Your task to perform on an android device: change the clock display to show seconds Image 0: 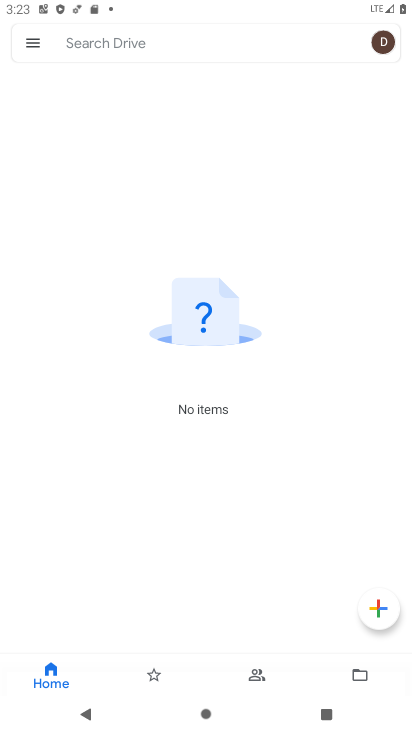
Step 0: press home button
Your task to perform on an android device: change the clock display to show seconds Image 1: 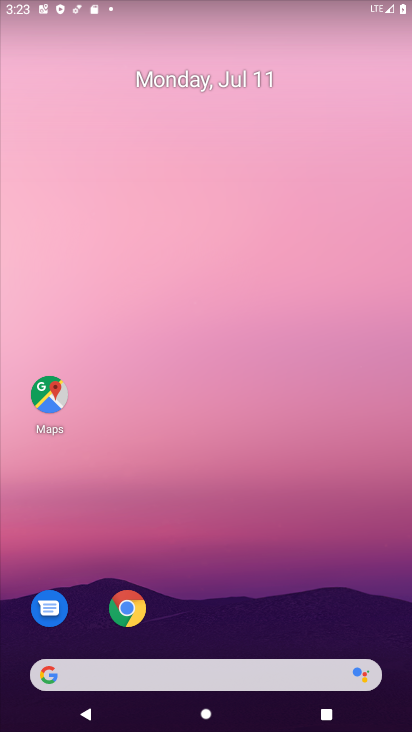
Step 1: drag from (163, 638) to (90, 129)
Your task to perform on an android device: change the clock display to show seconds Image 2: 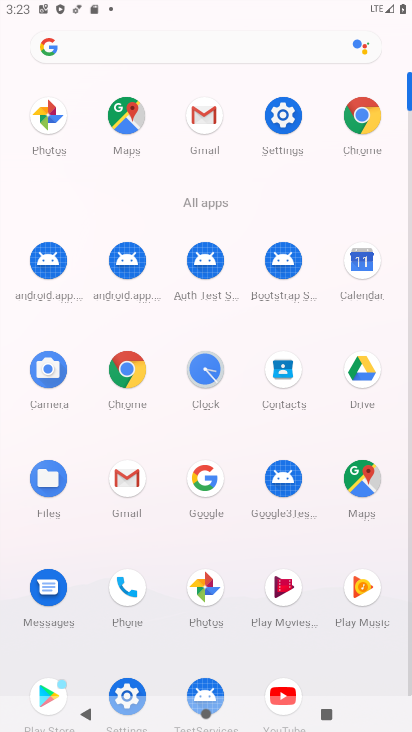
Step 2: click (214, 375)
Your task to perform on an android device: change the clock display to show seconds Image 3: 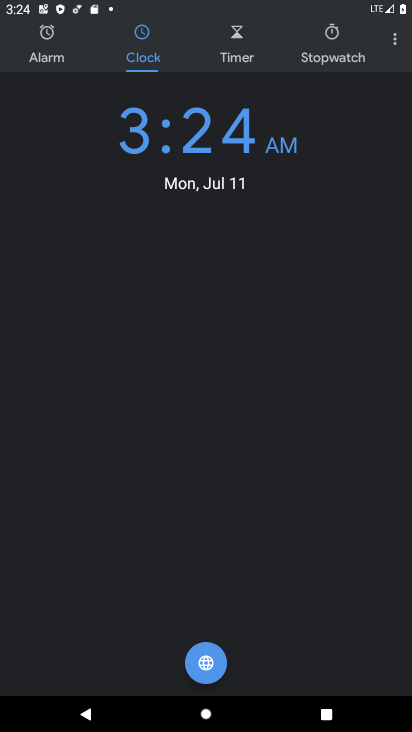
Step 3: click (389, 45)
Your task to perform on an android device: change the clock display to show seconds Image 4: 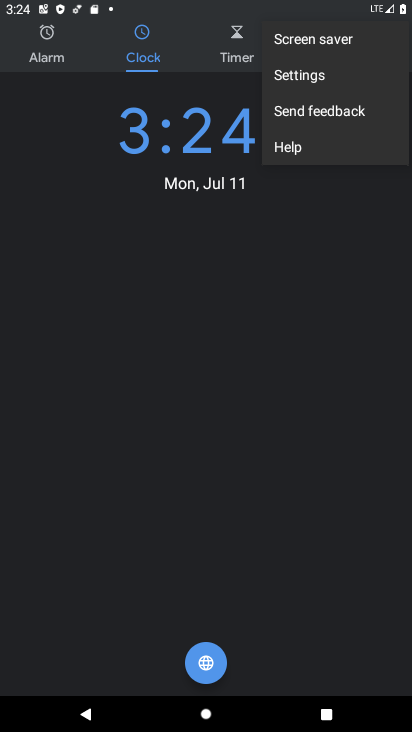
Step 4: click (323, 72)
Your task to perform on an android device: change the clock display to show seconds Image 5: 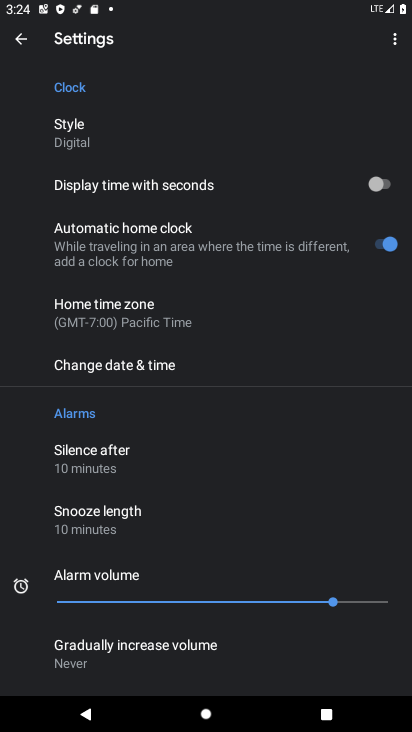
Step 5: click (382, 187)
Your task to perform on an android device: change the clock display to show seconds Image 6: 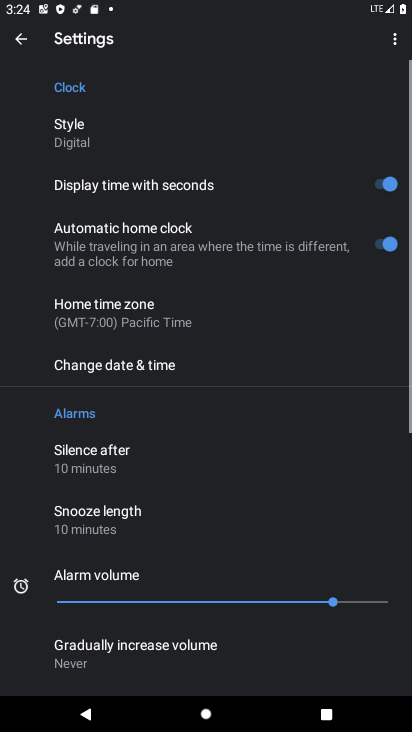
Step 6: task complete